Your task to perform on an android device: Go to Google Image 0: 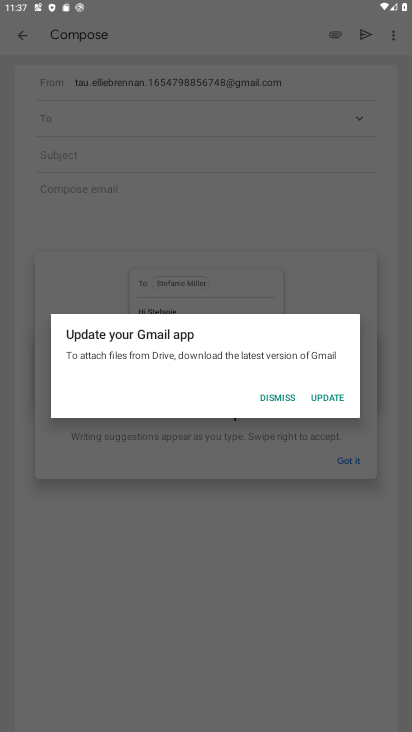
Step 0: press home button
Your task to perform on an android device: Go to Google Image 1: 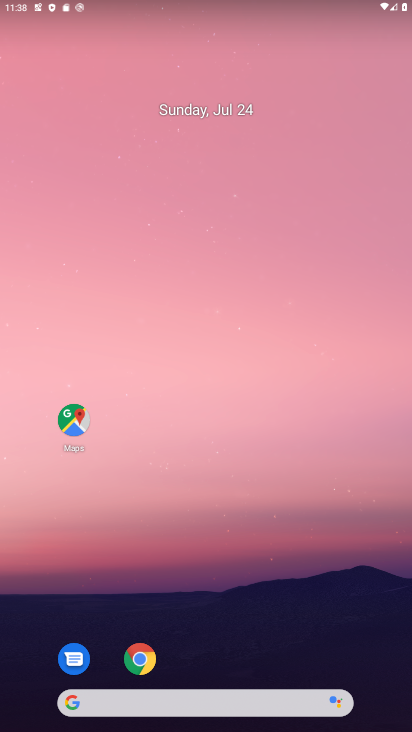
Step 1: click (139, 702)
Your task to perform on an android device: Go to Google Image 2: 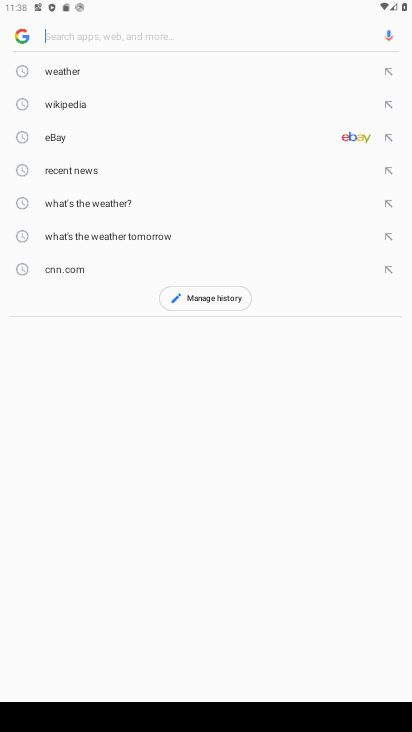
Step 2: task complete